Your task to perform on an android device: Go to settings Image 0: 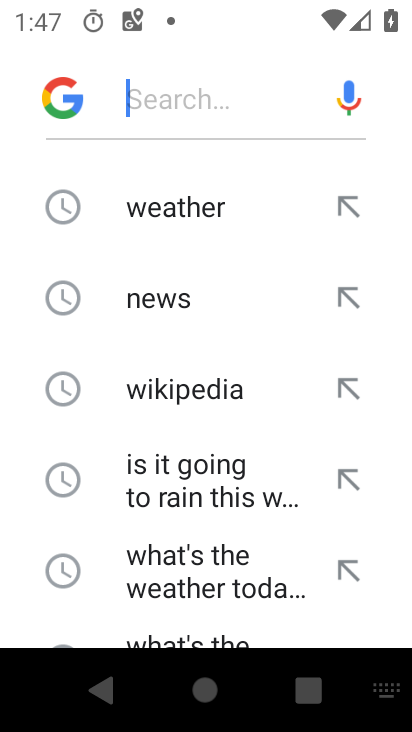
Step 0: press home button
Your task to perform on an android device: Go to settings Image 1: 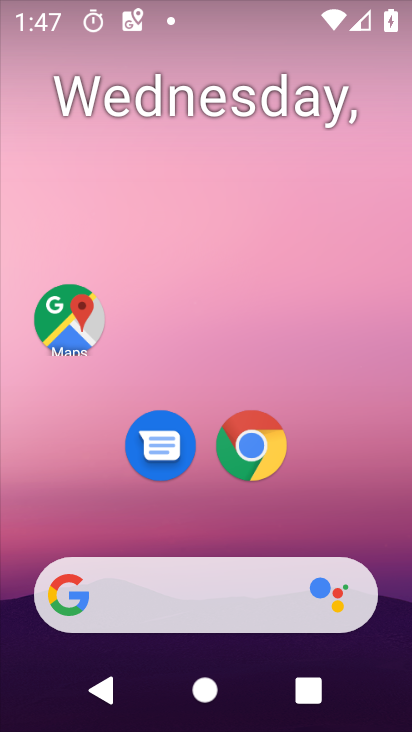
Step 1: drag from (358, 501) to (300, 67)
Your task to perform on an android device: Go to settings Image 2: 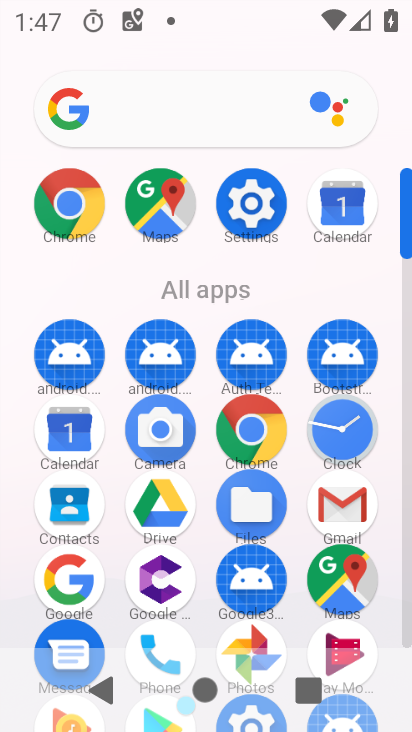
Step 2: click (247, 230)
Your task to perform on an android device: Go to settings Image 3: 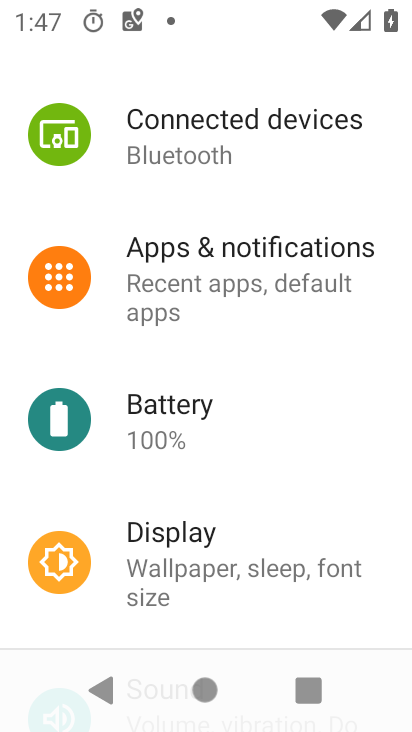
Step 3: task complete